Your task to perform on an android device: open app "Duolingo: language lessons" (install if not already installed), go to login, and select forgot password Image 0: 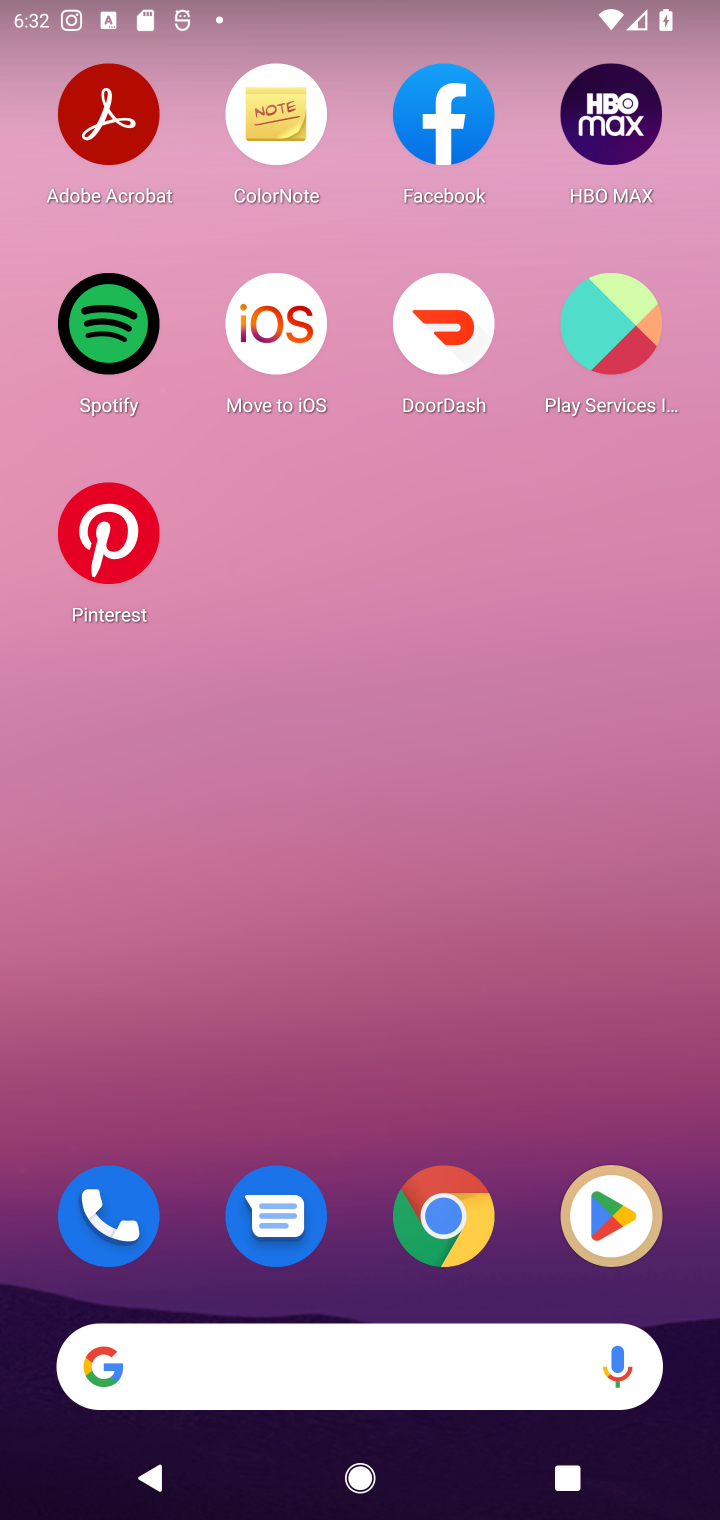
Step 0: click (592, 1189)
Your task to perform on an android device: open app "Duolingo: language lessons" (install if not already installed), go to login, and select forgot password Image 1: 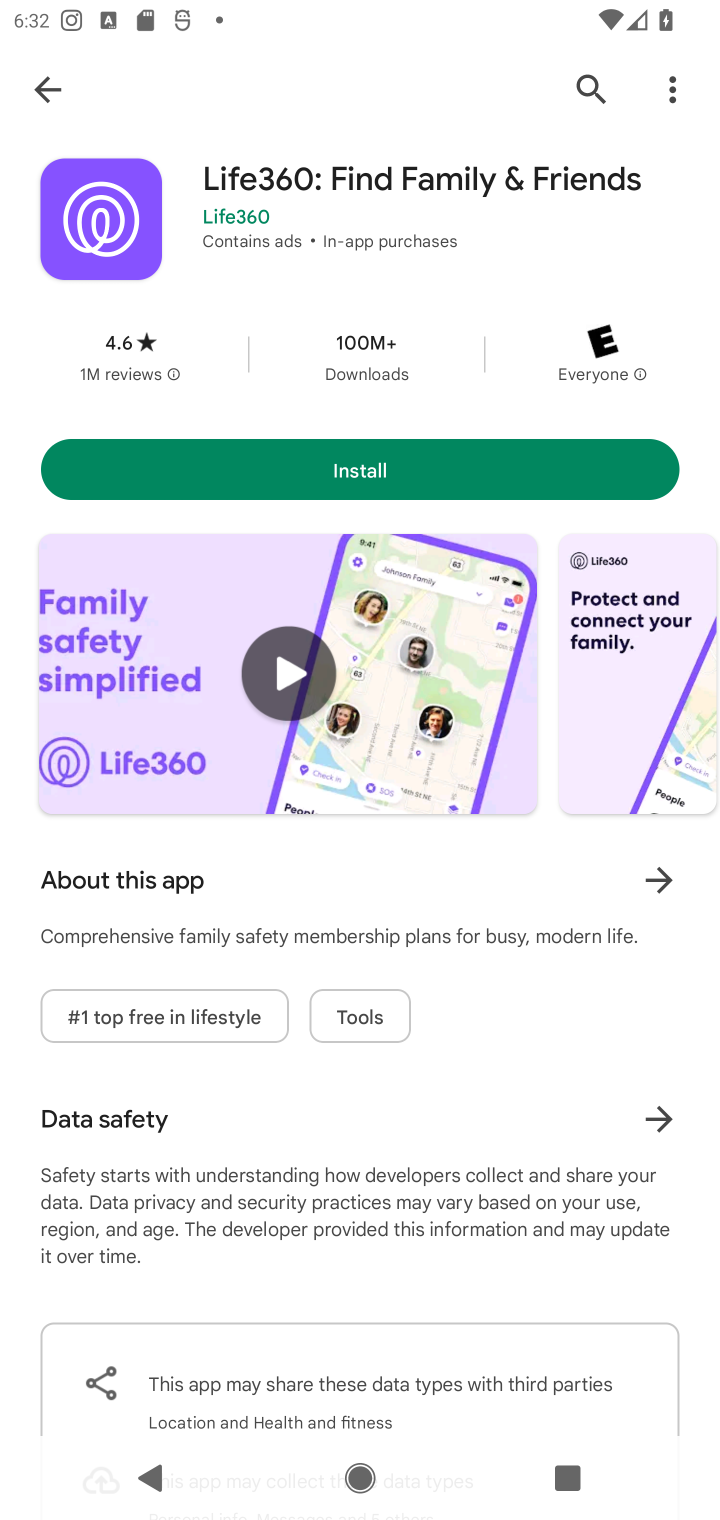
Step 1: click (594, 92)
Your task to perform on an android device: open app "Duolingo: language lessons" (install if not already installed), go to login, and select forgot password Image 2: 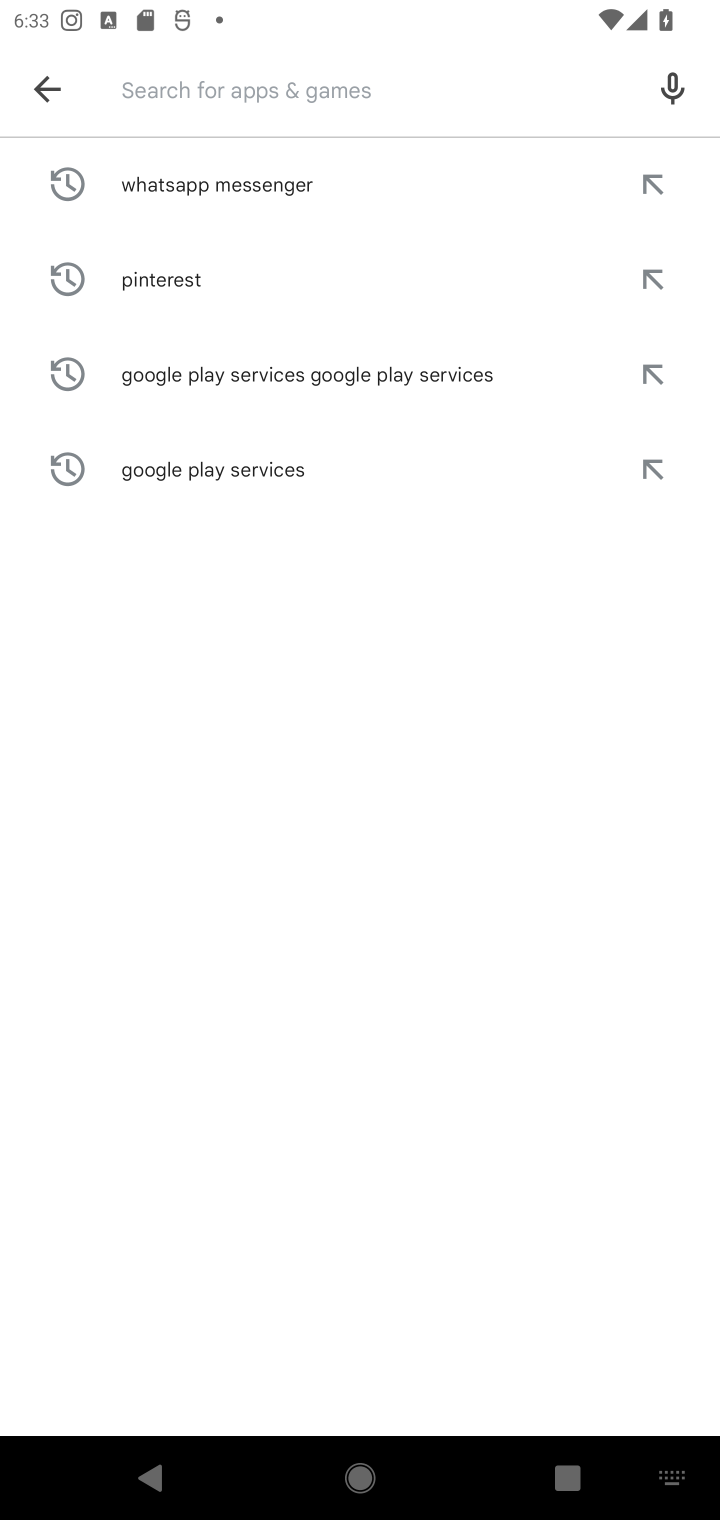
Step 2: type "Duolingo: language lessons"
Your task to perform on an android device: open app "Duolingo: language lessons" (install if not already installed), go to login, and select forgot password Image 3: 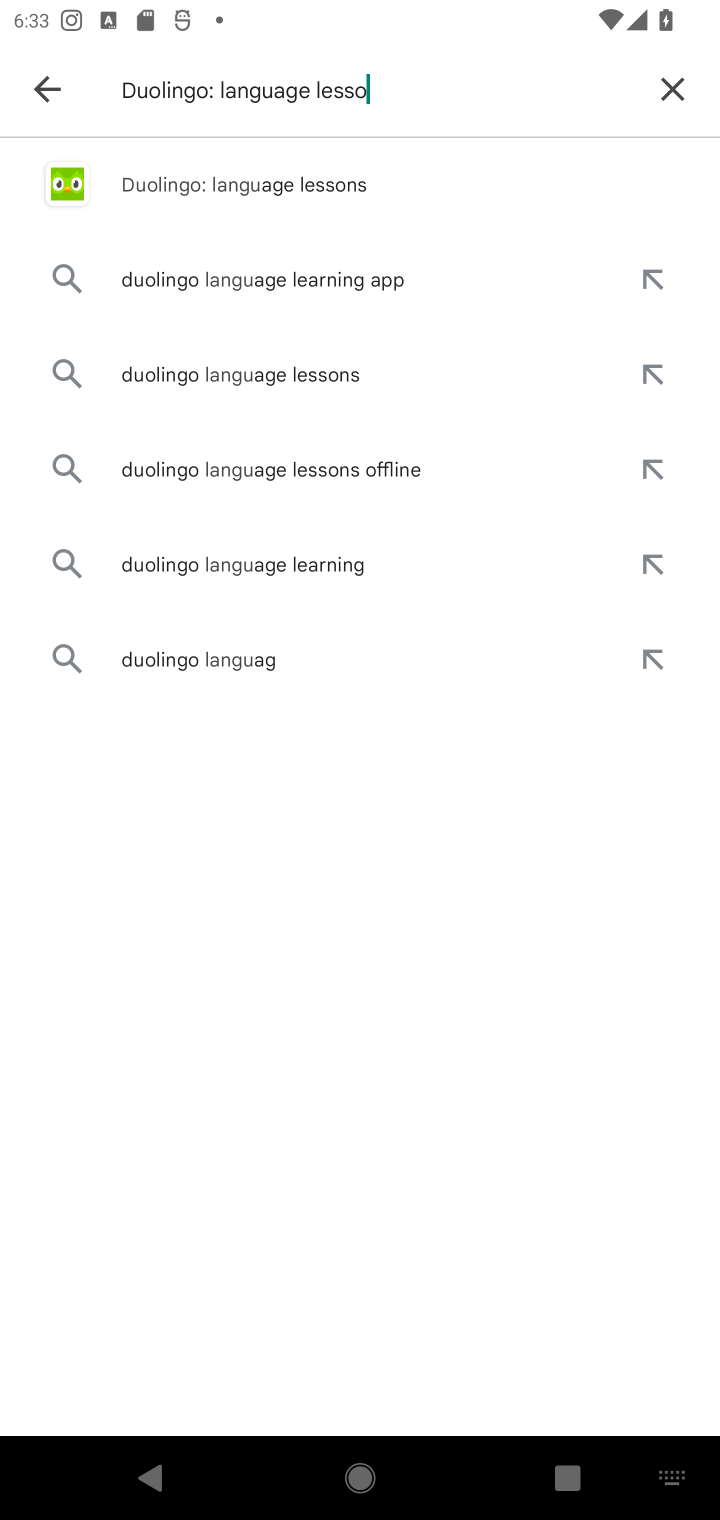
Step 3: type ""
Your task to perform on an android device: open app "Duolingo: language lessons" (install if not already installed), go to login, and select forgot password Image 4: 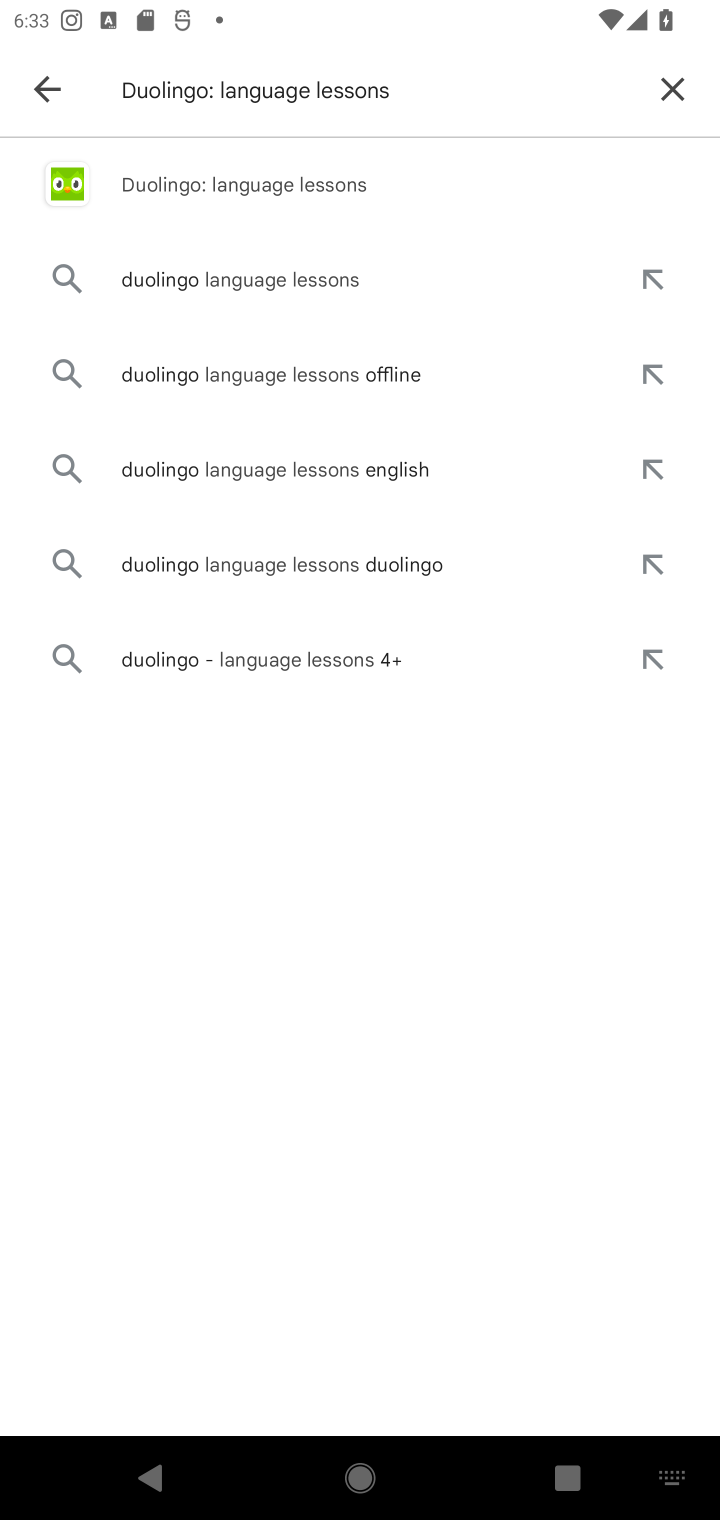
Step 4: click (206, 192)
Your task to perform on an android device: open app "Duolingo: language lessons" (install if not already installed), go to login, and select forgot password Image 5: 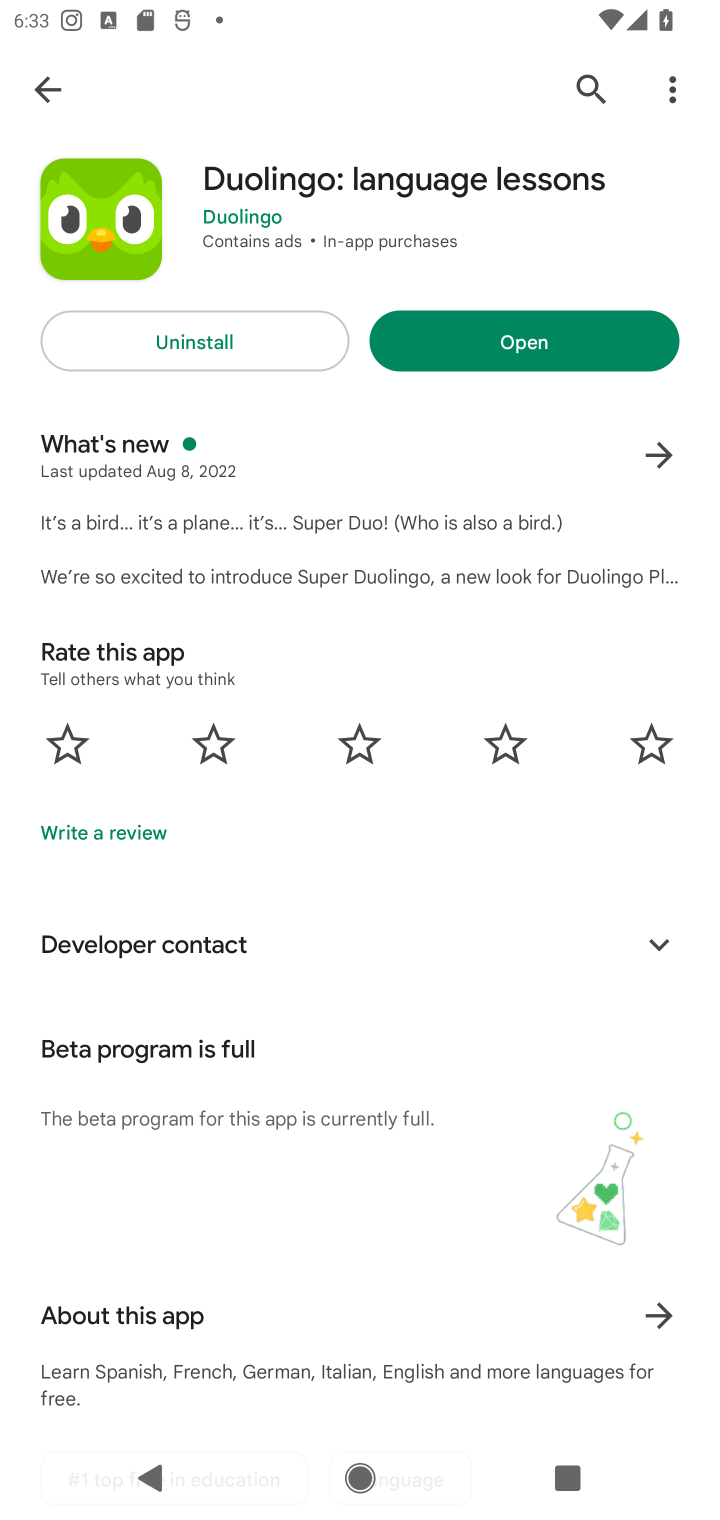
Step 5: click (542, 348)
Your task to perform on an android device: open app "Duolingo: language lessons" (install if not already installed), go to login, and select forgot password Image 6: 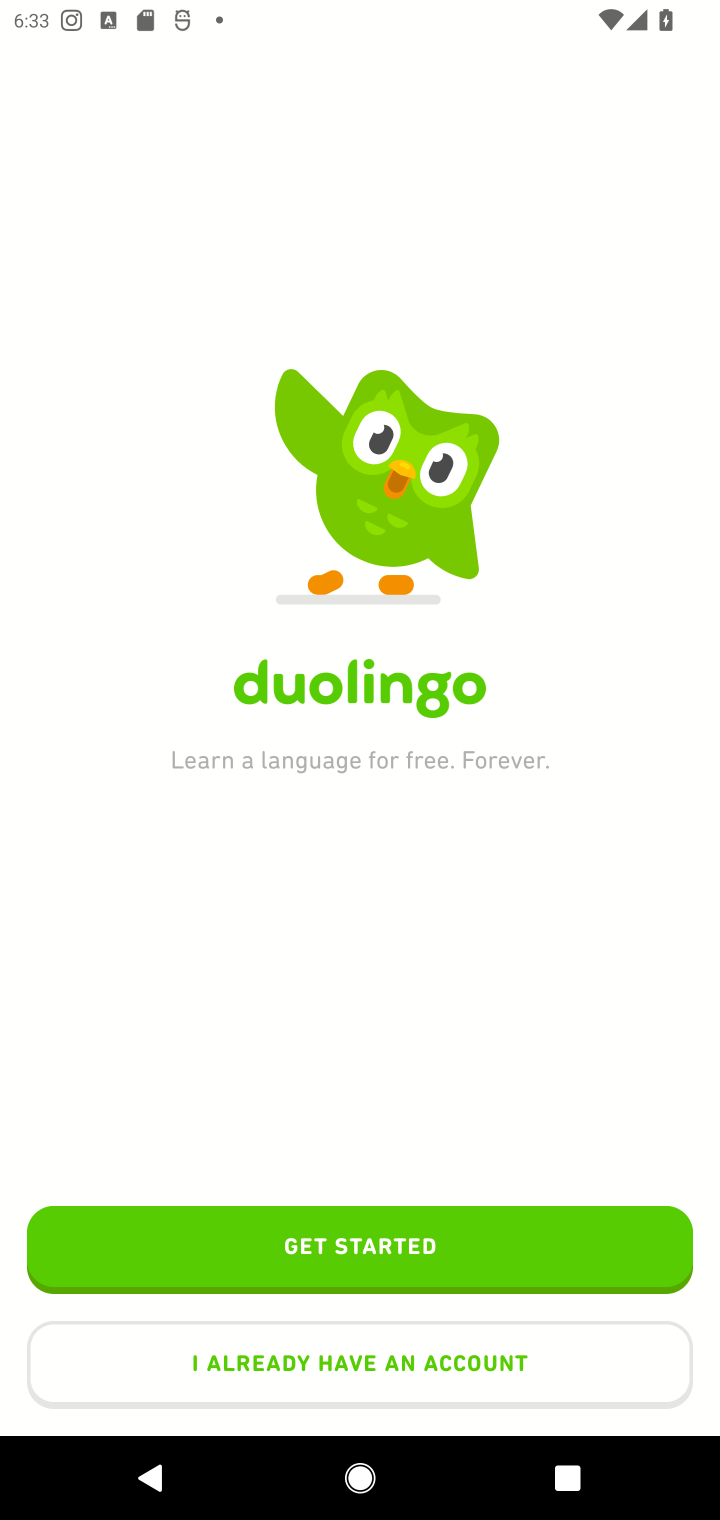
Step 6: task complete